Your task to perform on an android device: open chrome and create a bookmark for the current page Image 0: 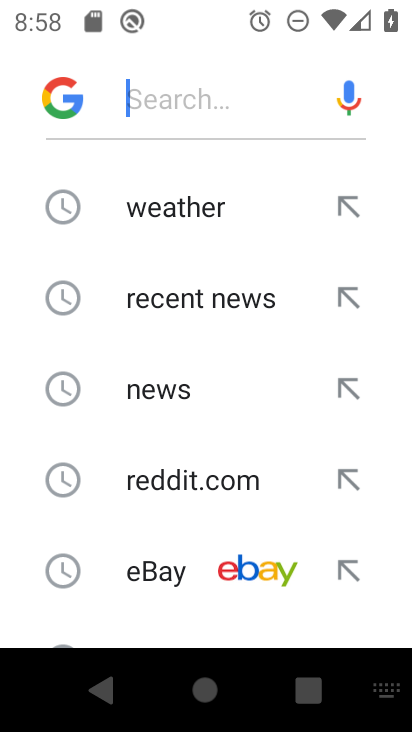
Step 0: press home button
Your task to perform on an android device: open chrome and create a bookmark for the current page Image 1: 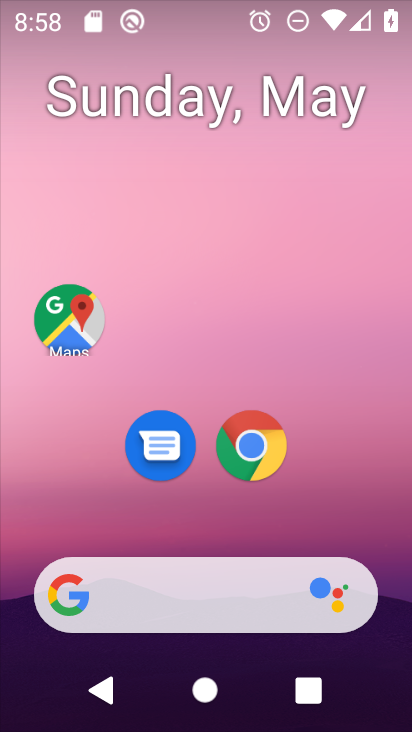
Step 1: drag from (182, 584) to (240, 138)
Your task to perform on an android device: open chrome and create a bookmark for the current page Image 2: 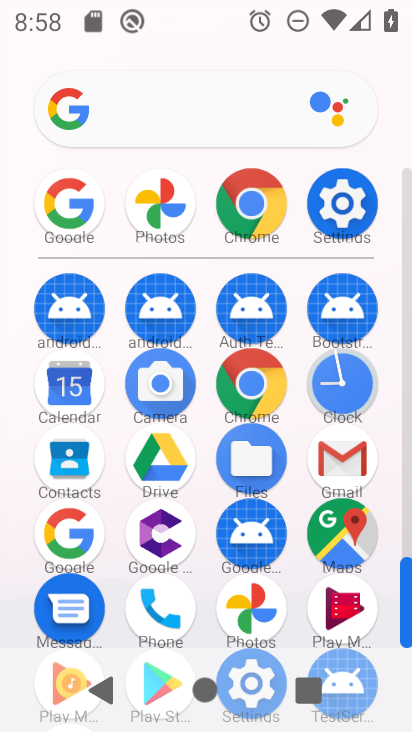
Step 2: click (251, 201)
Your task to perform on an android device: open chrome and create a bookmark for the current page Image 3: 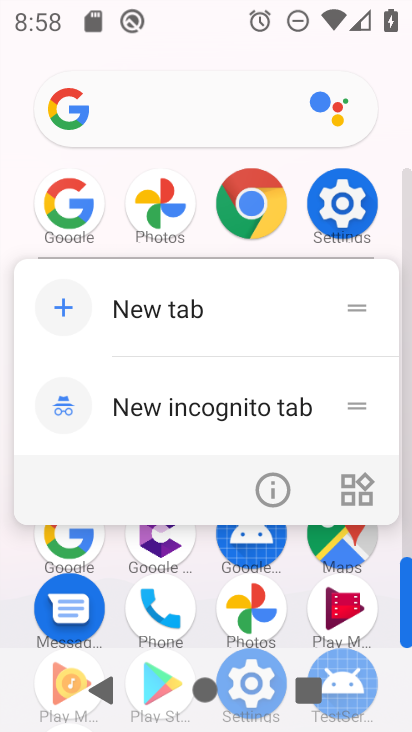
Step 3: click (267, 233)
Your task to perform on an android device: open chrome and create a bookmark for the current page Image 4: 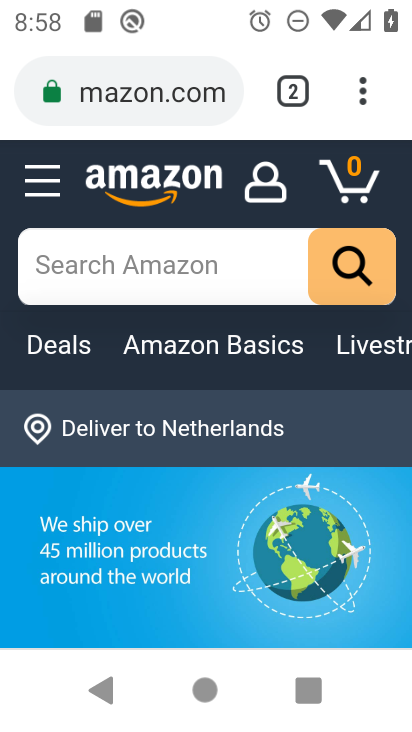
Step 4: click (362, 90)
Your task to perform on an android device: open chrome and create a bookmark for the current page Image 5: 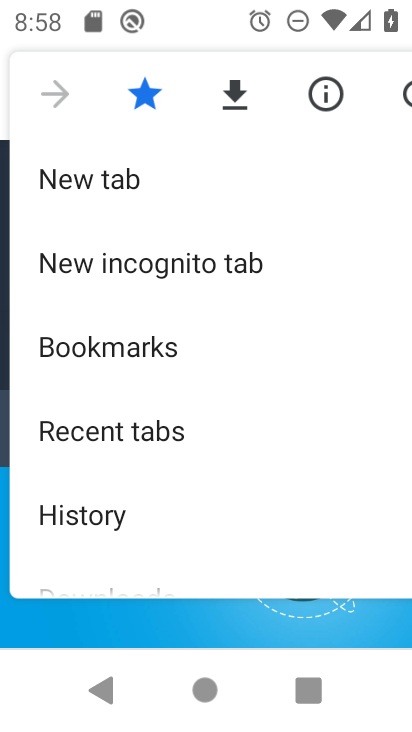
Step 5: click (247, 623)
Your task to perform on an android device: open chrome and create a bookmark for the current page Image 6: 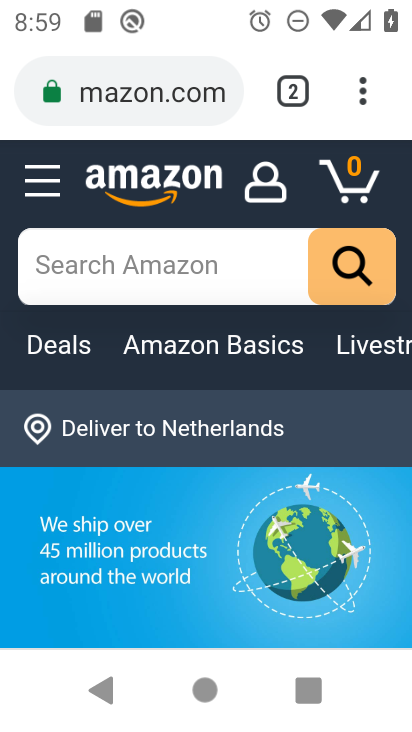
Step 6: drag from (138, 98) to (138, 296)
Your task to perform on an android device: open chrome and create a bookmark for the current page Image 7: 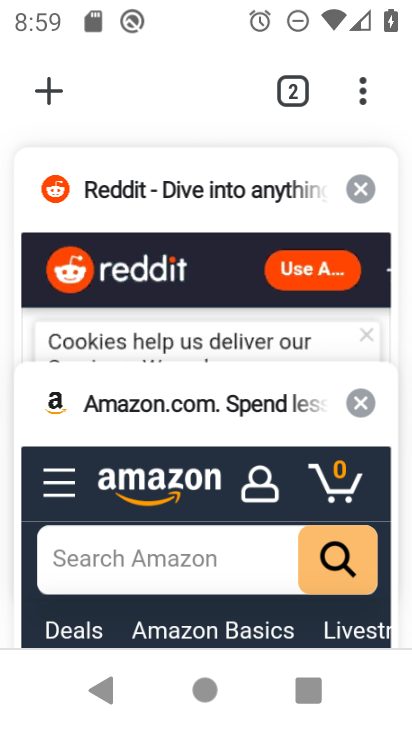
Step 7: click (57, 90)
Your task to perform on an android device: open chrome and create a bookmark for the current page Image 8: 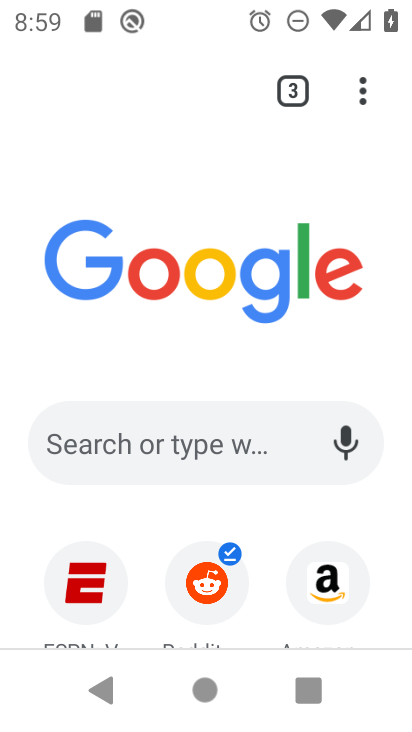
Step 8: task complete